Your task to perform on an android device: Search for beats solo 3 on amazon.com, select the first entry, and add it to the cart. Image 0: 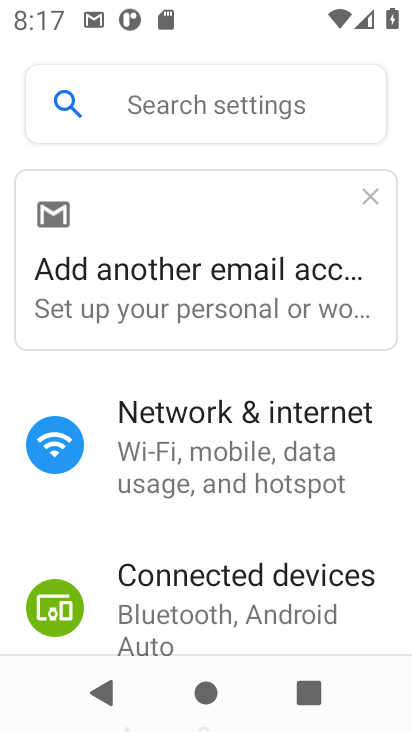
Step 0: press home button
Your task to perform on an android device: Search for beats solo 3 on amazon.com, select the first entry, and add it to the cart. Image 1: 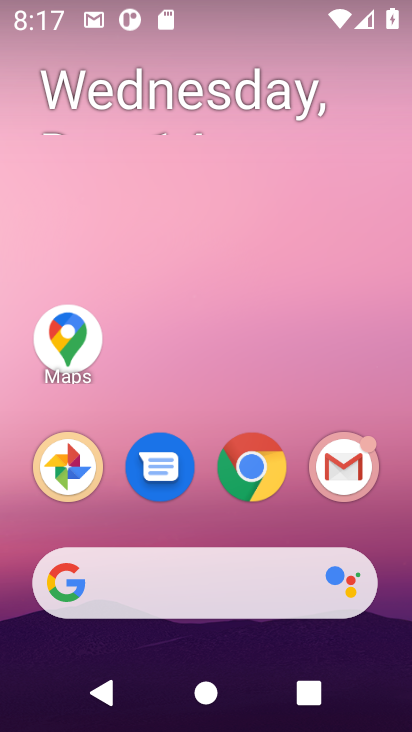
Step 1: click (269, 471)
Your task to perform on an android device: Search for beats solo 3 on amazon.com, select the first entry, and add it to the cart. Image 2: 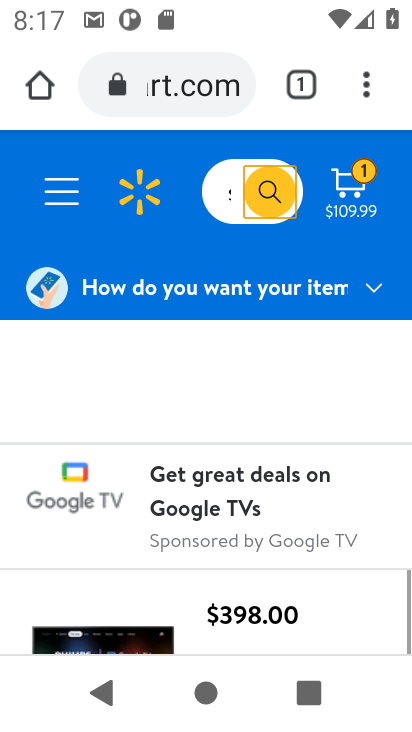
Step 2: click (204, 96)
Your task to perform on an android device: Search for beats solo 3 on amazon.com, select the first entry, and add it to the cart. Image 3: 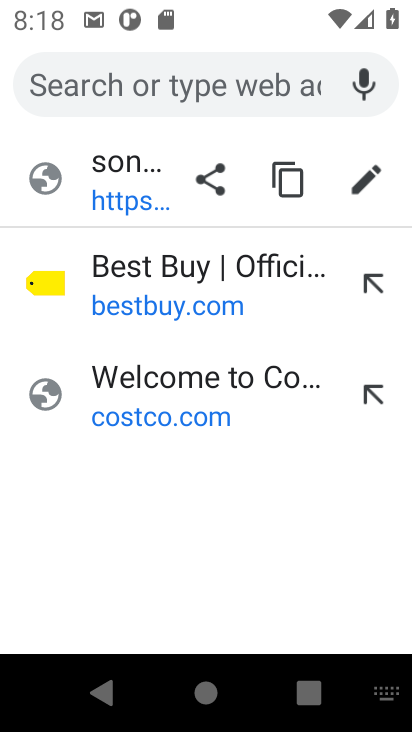
Step 3: type "amazon"
Your task to perform on an android device: Search for beats solo 3 on amazon.com, select the first entry, and add it to the cart. Image 4: 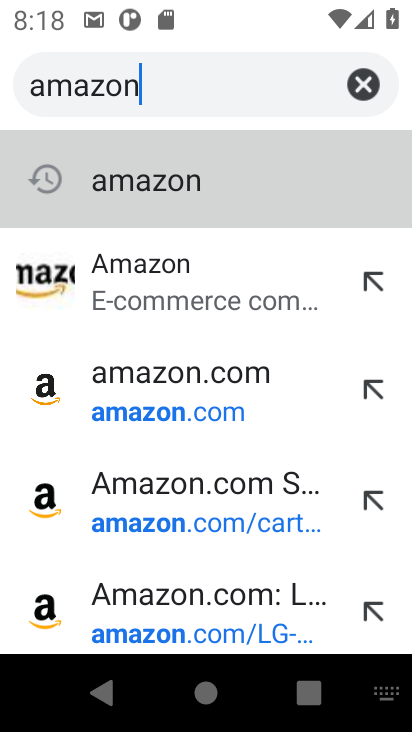
Step 4: click (159, 262)
Your task to perform on an android device: Search for beats solo 3 on amazon.com, select the first entry, and add it to the cart. Image 5: 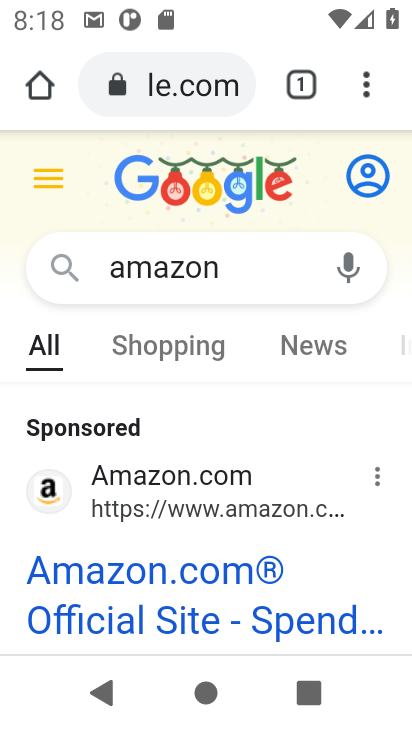
Step 5: click (241, 581)
Your task to perform on an android device: Search for beats solo 3 on amazon.com, select the first entry, and add it to the cart. Image 6: 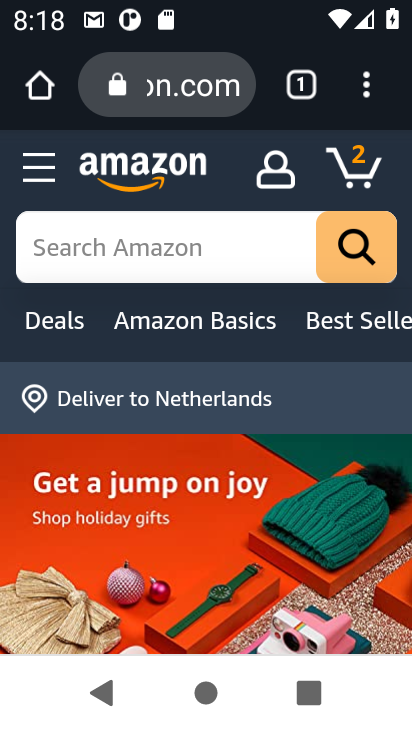
Step 6: click (217, 255)
Your task to perform on an android device: Search for beats solo 3 on amazon.com, select the first entry, and add it to the cart. Image 7: 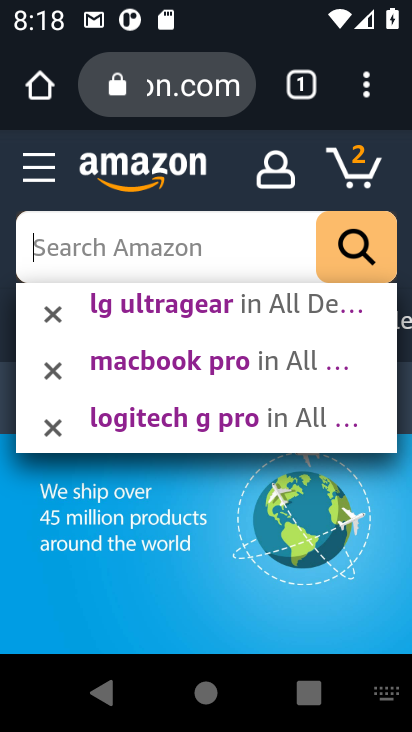
Step 7: type "beatsolo 3"
Your task to perform on an android device: Search for beats solo 3 on amazon.com, select the first entry, and add it to the cart. Image 8: 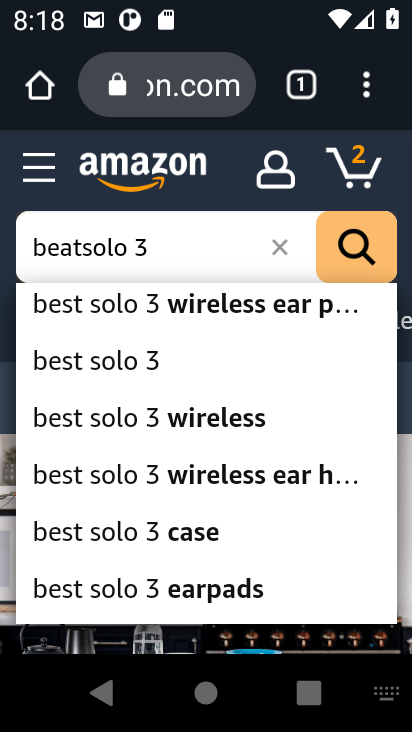
Step 8: click (340, 252)
Your task to perform on an android device: Search for beats solo 3 on amazon.com, select the first entry, and add it to the cart. Image 9: 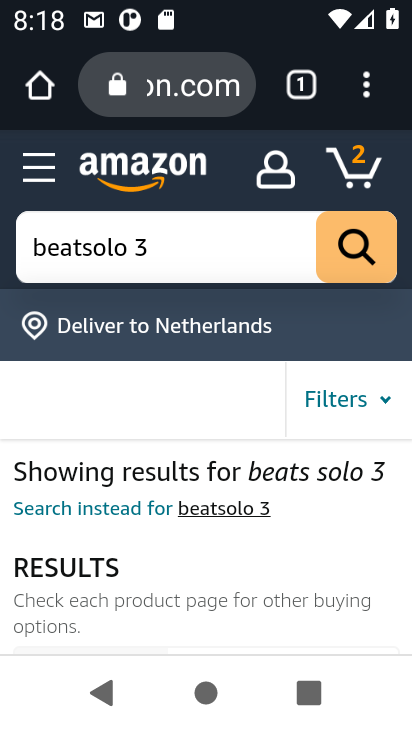
Step 9: click (243, 511)
Your task to perform on an android device: Search for beats solo 3 on amazon.com, select the first entry, and add it to the cart. Image 10: 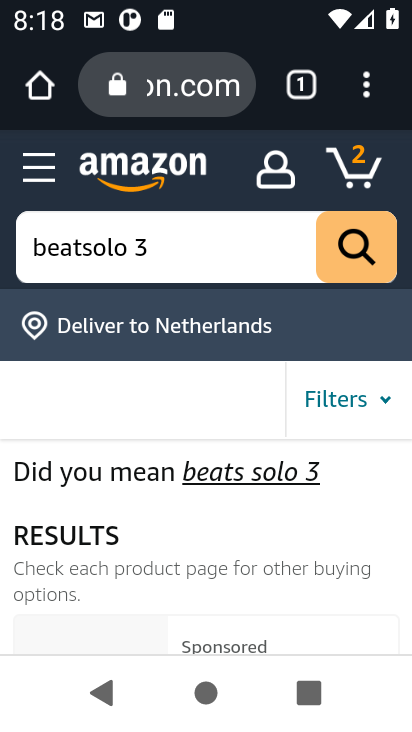
Step 10: task complete